Your task to perform on an android device: Open privacy settings Image 0: 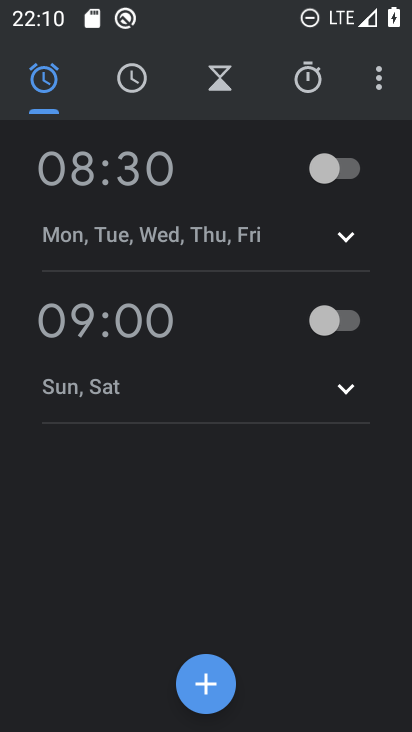
Step 0: press home button
Your task to perform on an android device: Open privacy settings Image 1: 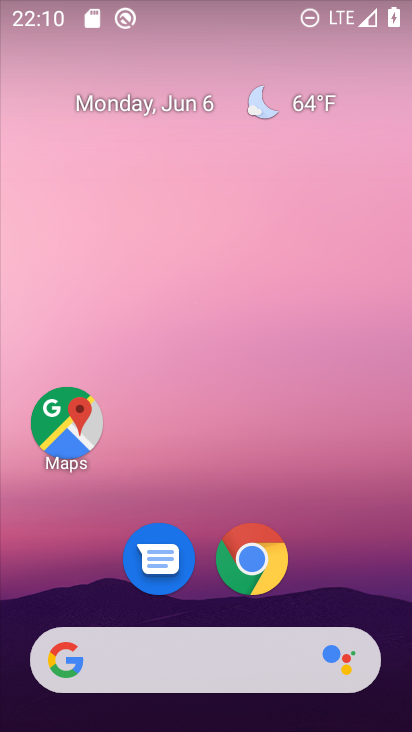
Step 1: drag from (229, 726) to (250, 34)
Your task to perform on an android device: Open privacy settings Image 2: 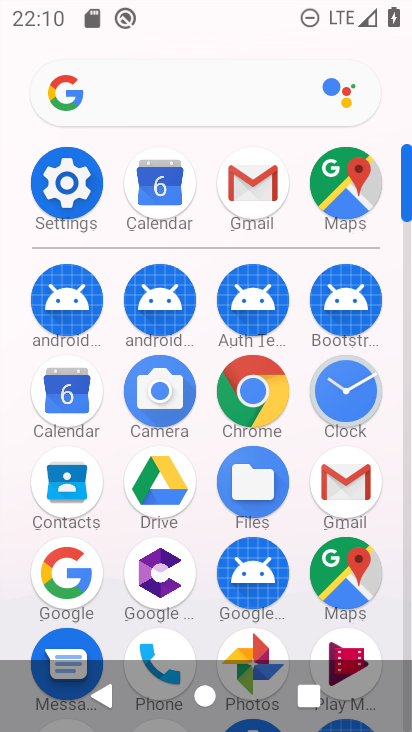
Step 2: click (63, 185)
Your task to perform on an android device: Open privacy settings Image 3: 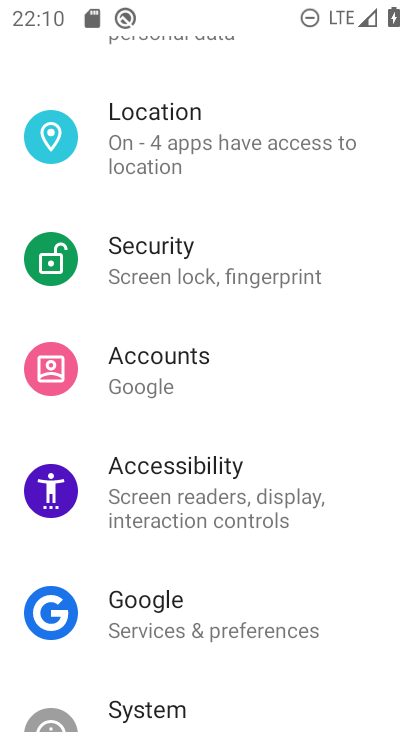
Step 3: drag from (251, 105) to (256, 590)
Your task to perform on an android device: Open privacy settings Image 4: 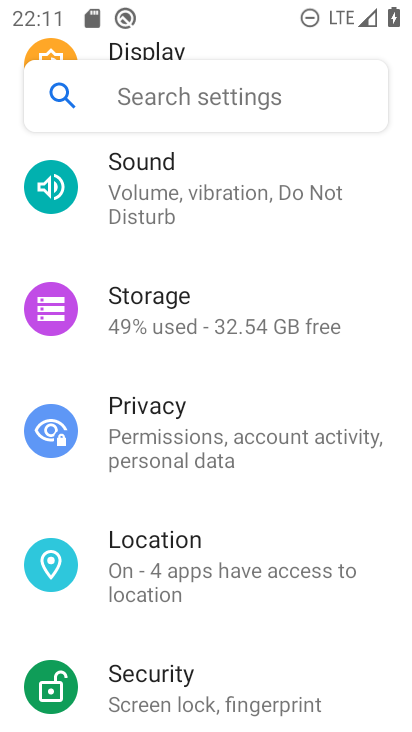
Step 4: click (181, 442)
Your task to perform on an android device: Open privacy settings Image 5: 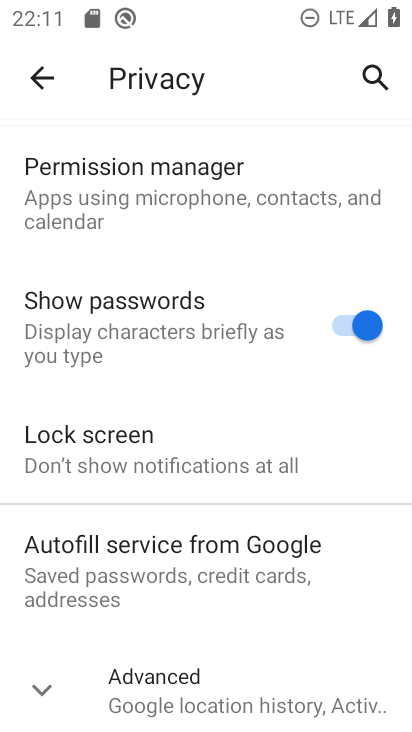
Step 5: task complete